Your task to perform on an android device: turn on showing notifications on the lock screen Image 0: 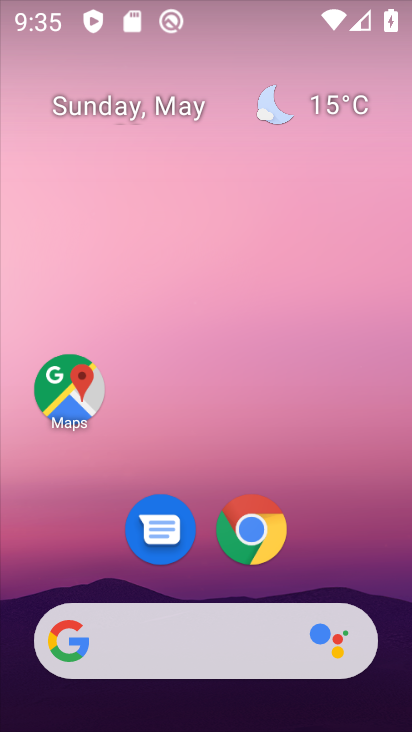
Step 0: drag from (331, 641) to (366, 6)
Your task to perform on an android device: turn on showing notifications on the lock screen Image 1: 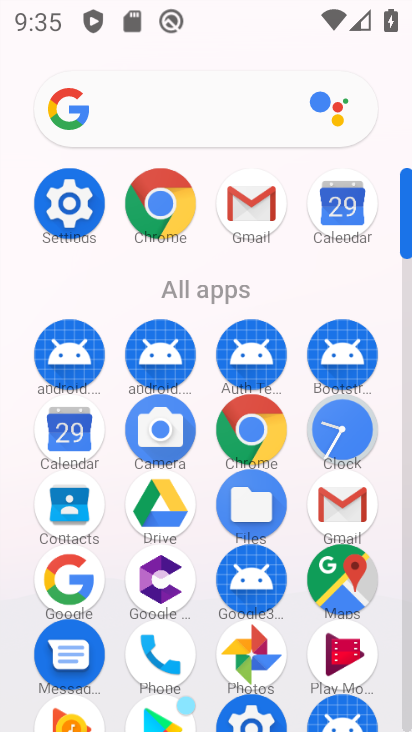
Step 1: click (76, 211)
Your task to perform on an android device: turn on showing notifications on the lock screen Image 2: 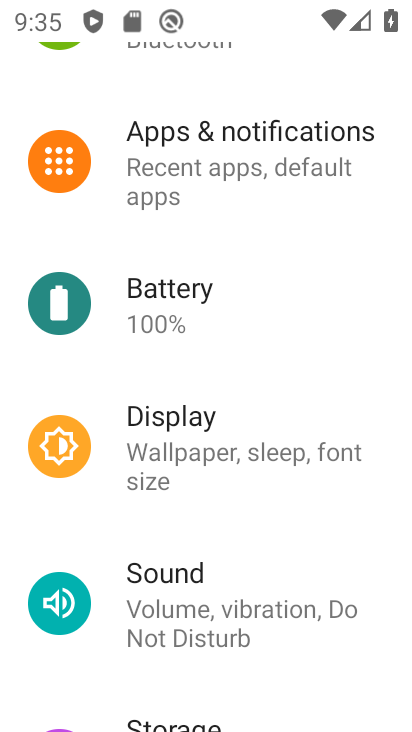
Step 2: drag from (275, 671) to (295, 641)
Your task to perform on an android device: turn on showing notifications on the lock screen Image 3: 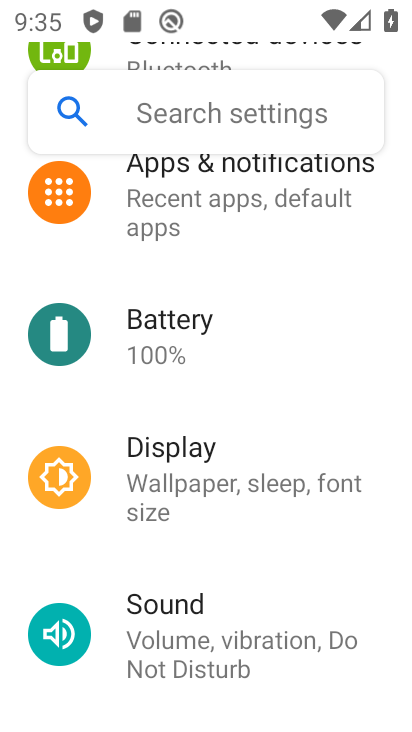
Step 3: click (276, 190)
Your task to perform on an android device: turn on showing notifications on the lock screen Image 4: 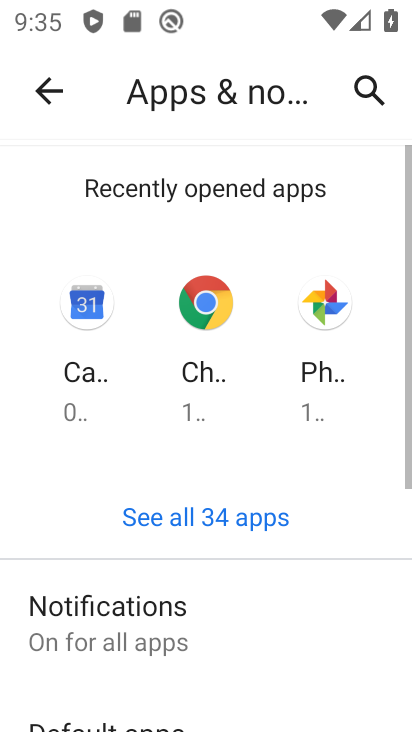
Step 4: drag from (267, 628) to (286, 143)
Your task to perform on an android device: turn on showing notifications on the lock screen Image 5: 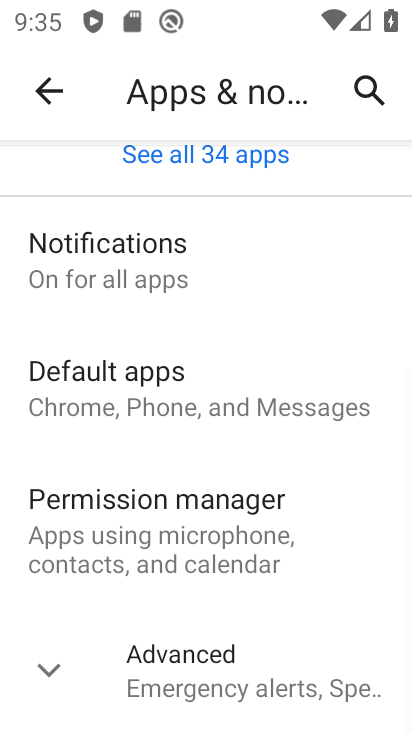
Step 5: click (171, 243)
Your task to perform on an android device: turn on showing notifications on the lock screen Image 6: 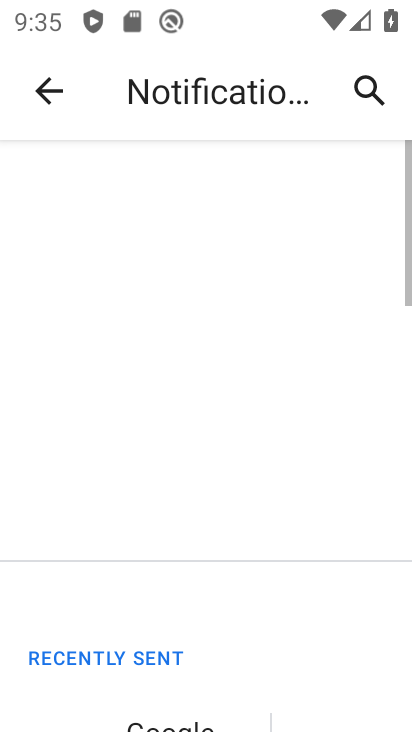
Step 6: drag from (268, 595) to (269, 133)
Your task to perform on an android device: turn on showing notifications on the lock screen Image 7: 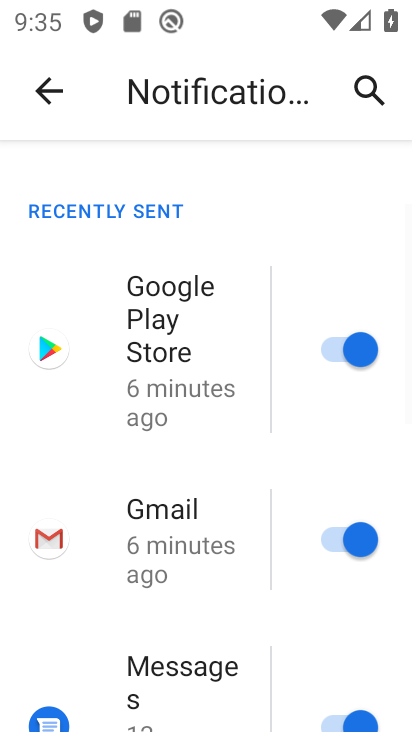
Step 7: drag from (241, 649) to (277, 200)
Your task to perform on an android device: turn on showing notifications on the lock screen Image 8: 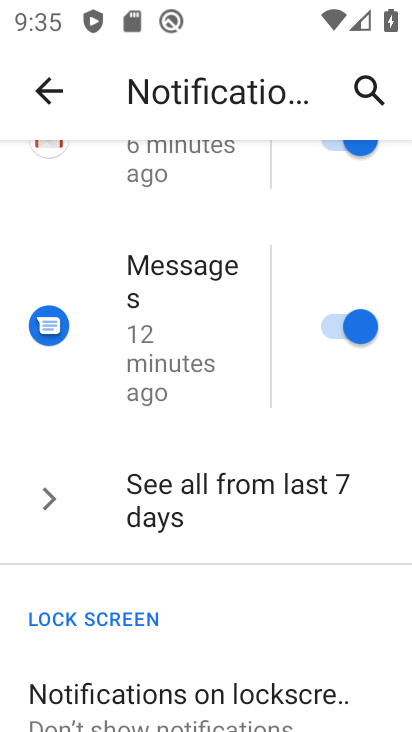
Step 8: click (235, 699)
Your task to perform on an android device: turn on showing notifications on the lock screen Image 9: 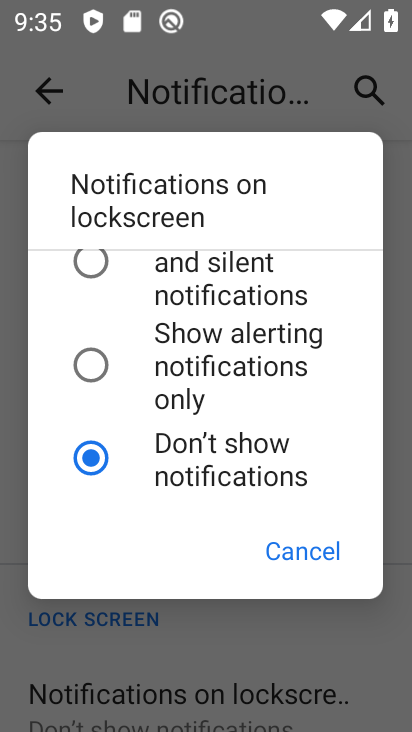
Step 9: click (81, 267)
Your task to perform on an android device: turn on showing notifications on the lock screen Image 10: 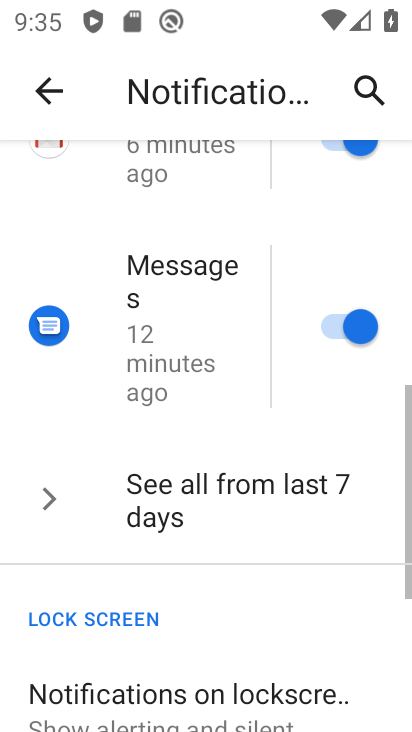
Step 10: task complete